Your task to perform on an android device: turn smart compose on in the gmail app Image 0: 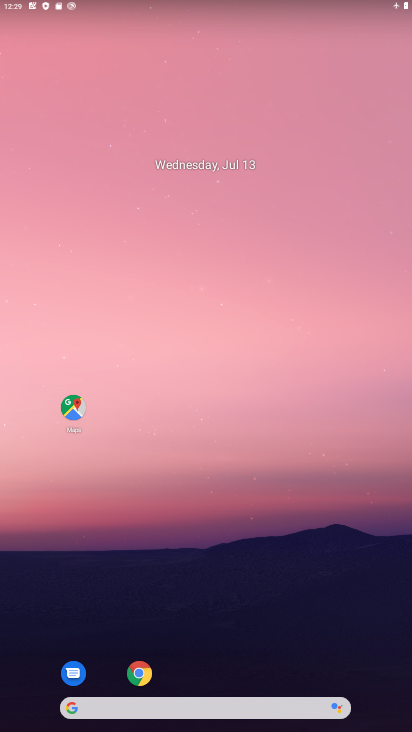
Step 0: drag from (255, 644) to (305, 41)
Your task to perform on an android device: turn smart compose on in the gmail app Image 1: 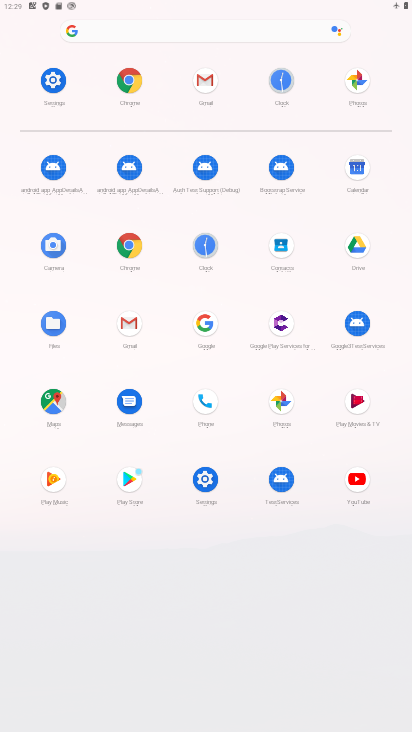
Step 1: click (211, 87)
Your task to perform on an android device: turn smart compose on in the gmail app Image 2: 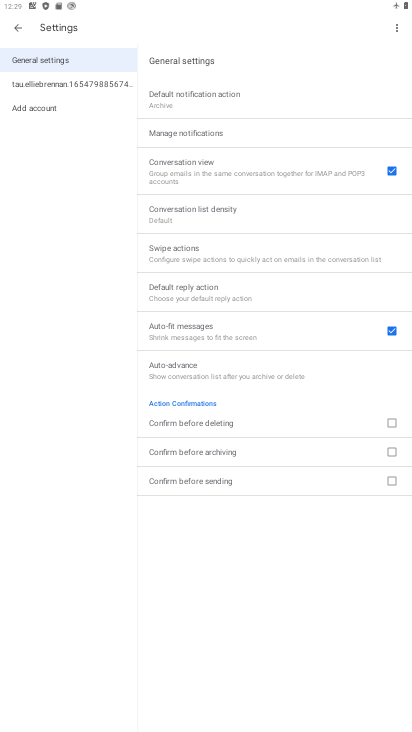
Step 2: click (82, 95)
Your task to perform on an android device: turn smart compose on in the gmail app Image 3: 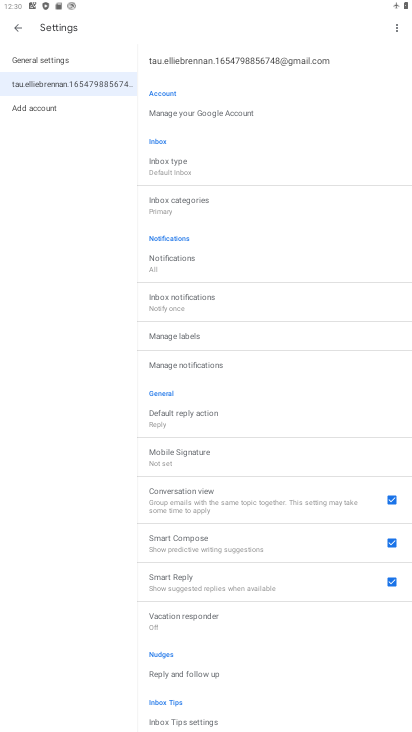
Step 3: click (389, 549)
Your task to perform on an android device: turn smart compose on in the gmail app Image 4: 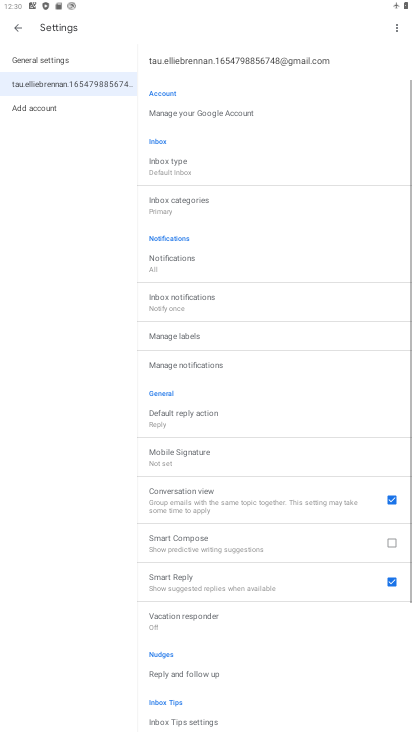
Step 4: task complete